Your task to perform on an android device: delete a single message in the gmail app Image 0: 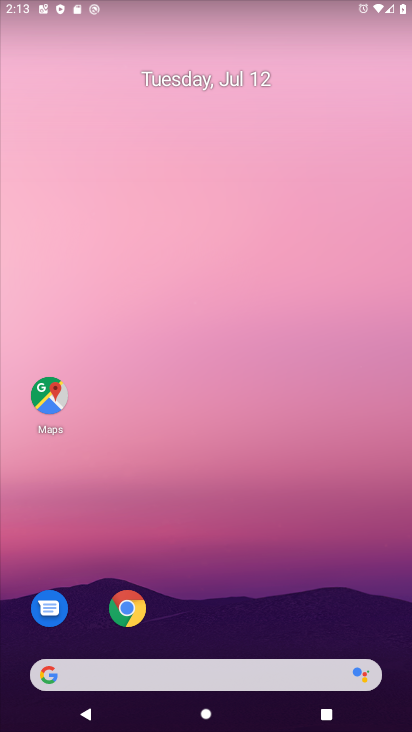
Step 0: drag from (293, 606) to (124, 118)
Your task to perform on an android device: delete a single message in the gmail app Image 1: 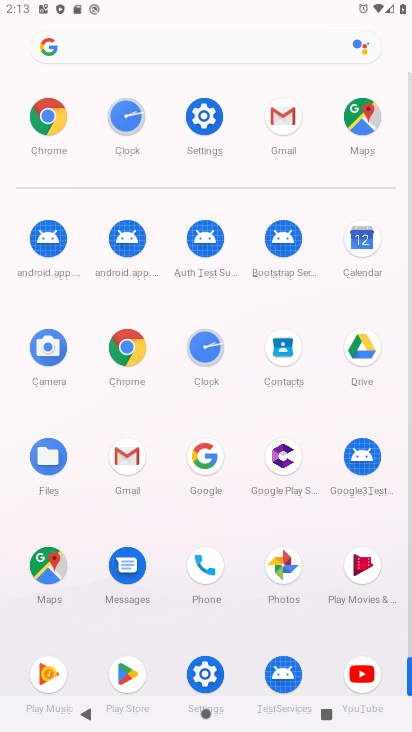
Step 1: click (288, 116)
Your task to perform on an android device: delete a single message in the gmail app Image 2: 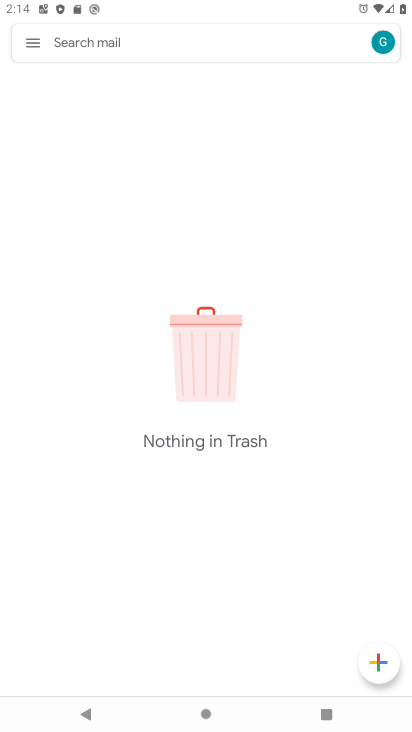
Step 2: click (27, 41)
Your task to perform on an android device: delete a single message in the gmail app Image 3: 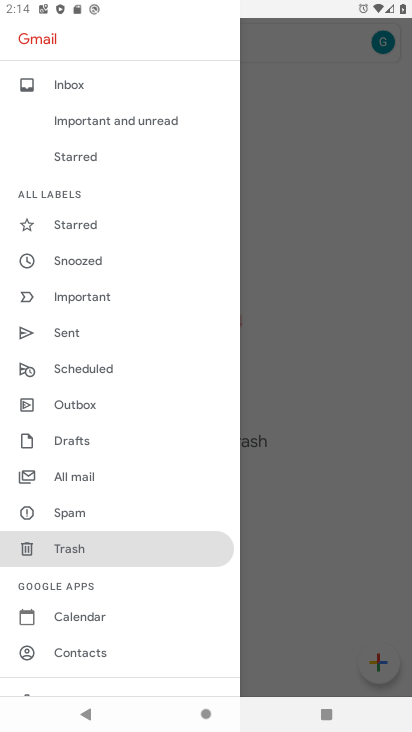
Step 3: click (84, 475)
Your task to perform on an android device: delete a single message in the gmail app Image 4: 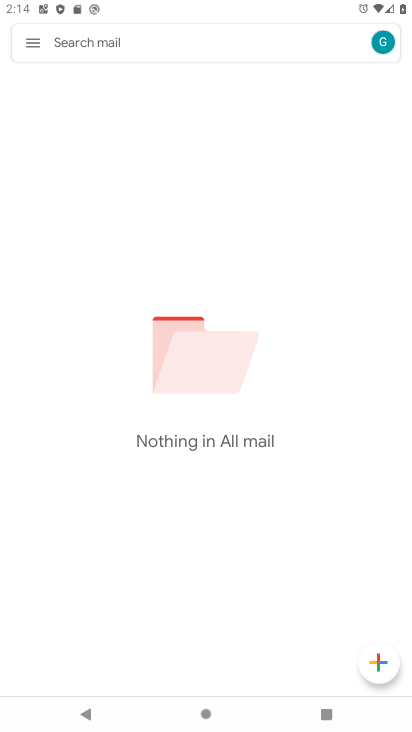
Step 4: task complete